Your task to perform on an android device: Open ESPN.com Image 0: 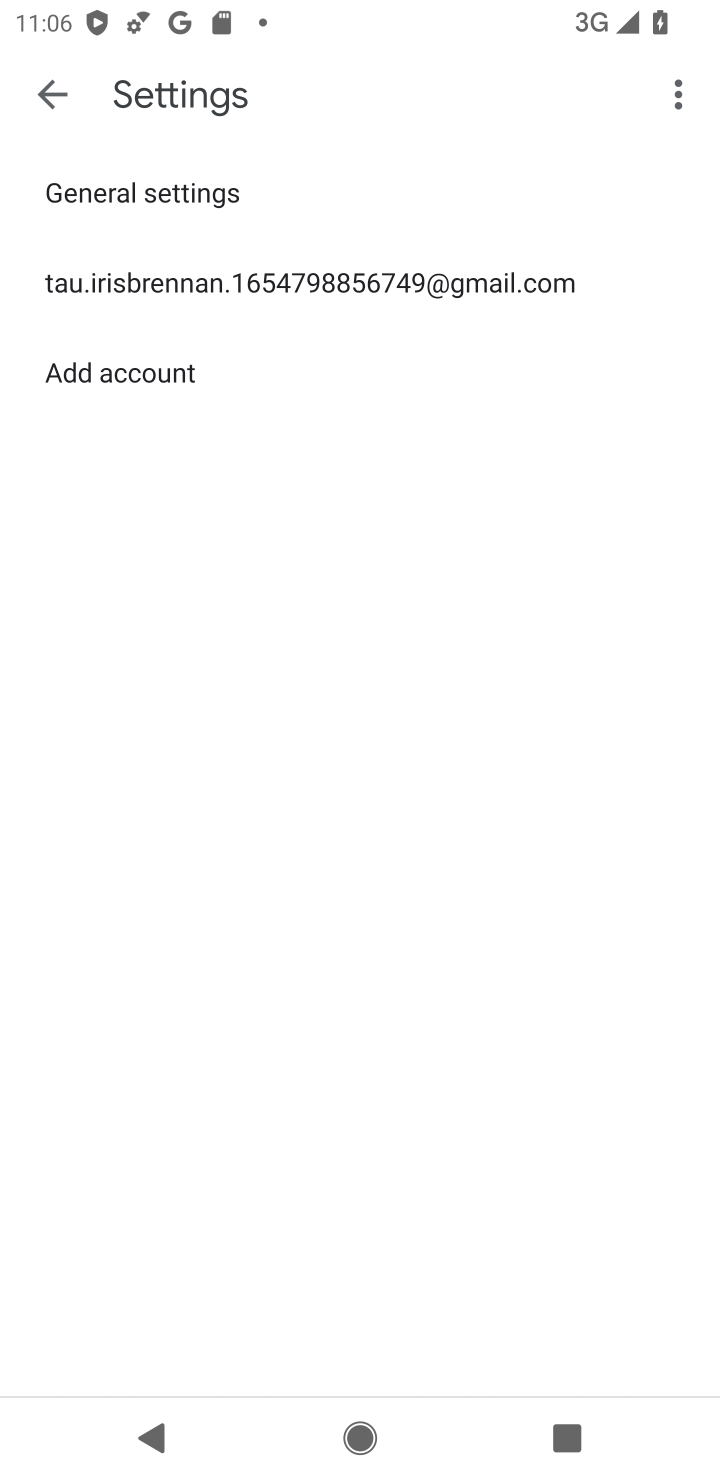
Step 0: press home button
Your task to perform on an android device: Open ESPN.com Image 1: 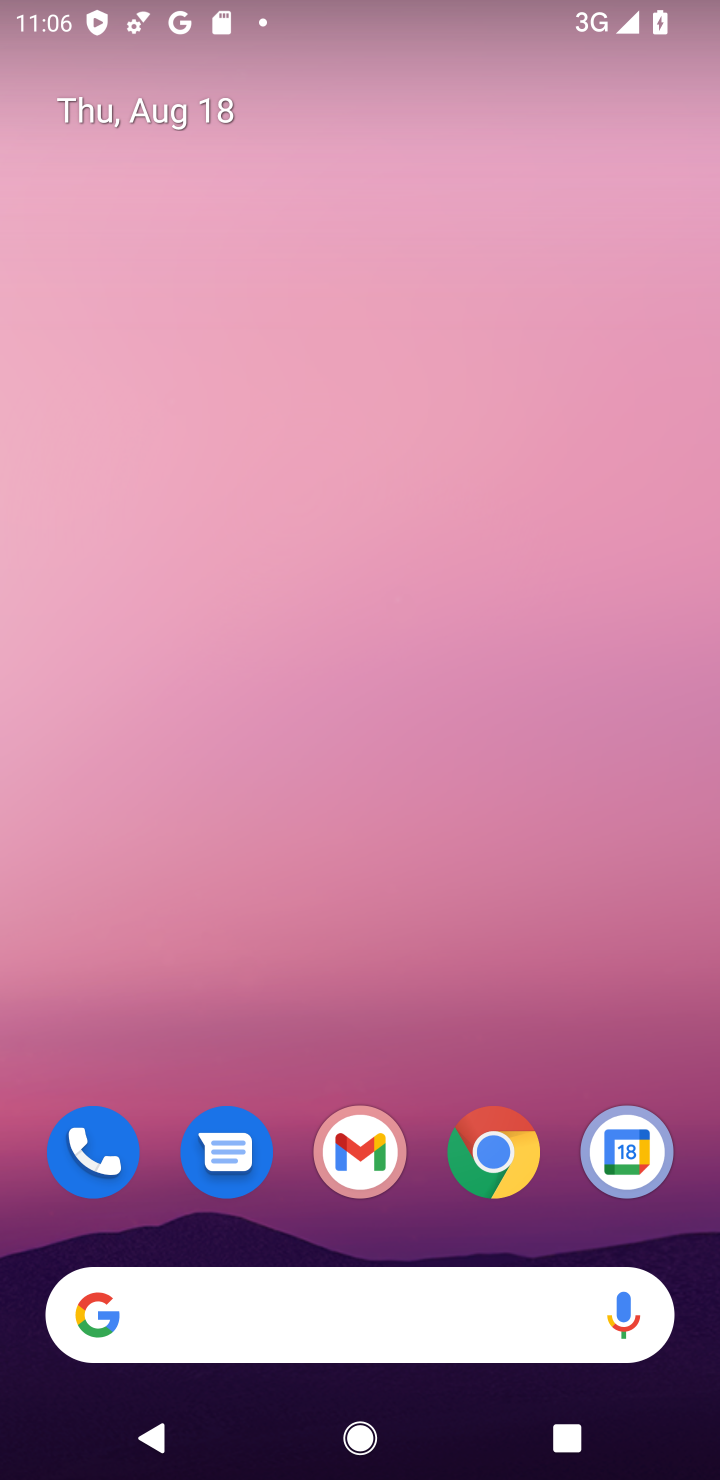
Step 1: click (436, 1336)
Your task to perform on an android device: Open ESPN.com Image 2: 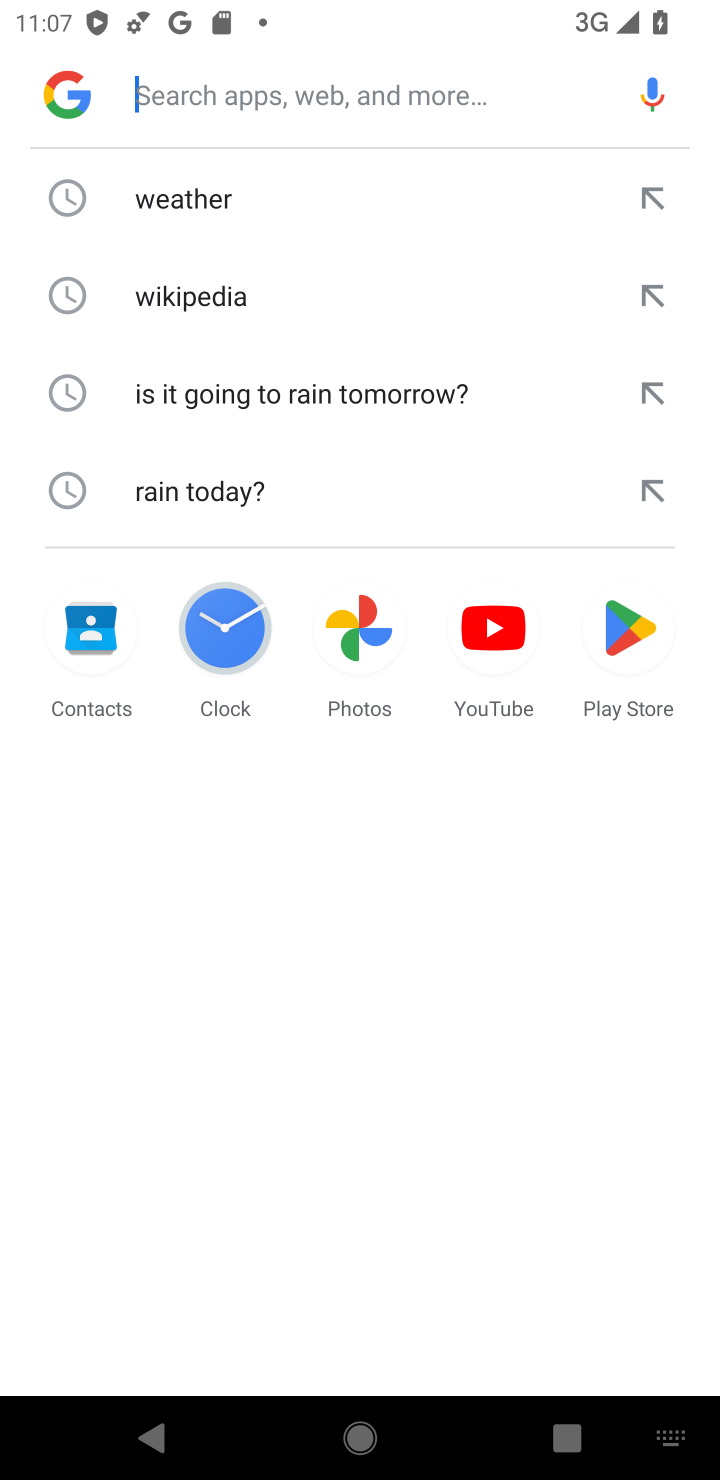
Step 2: type "espn.com"
Your task to perform on an android device: Open ESPN.com Image 3: 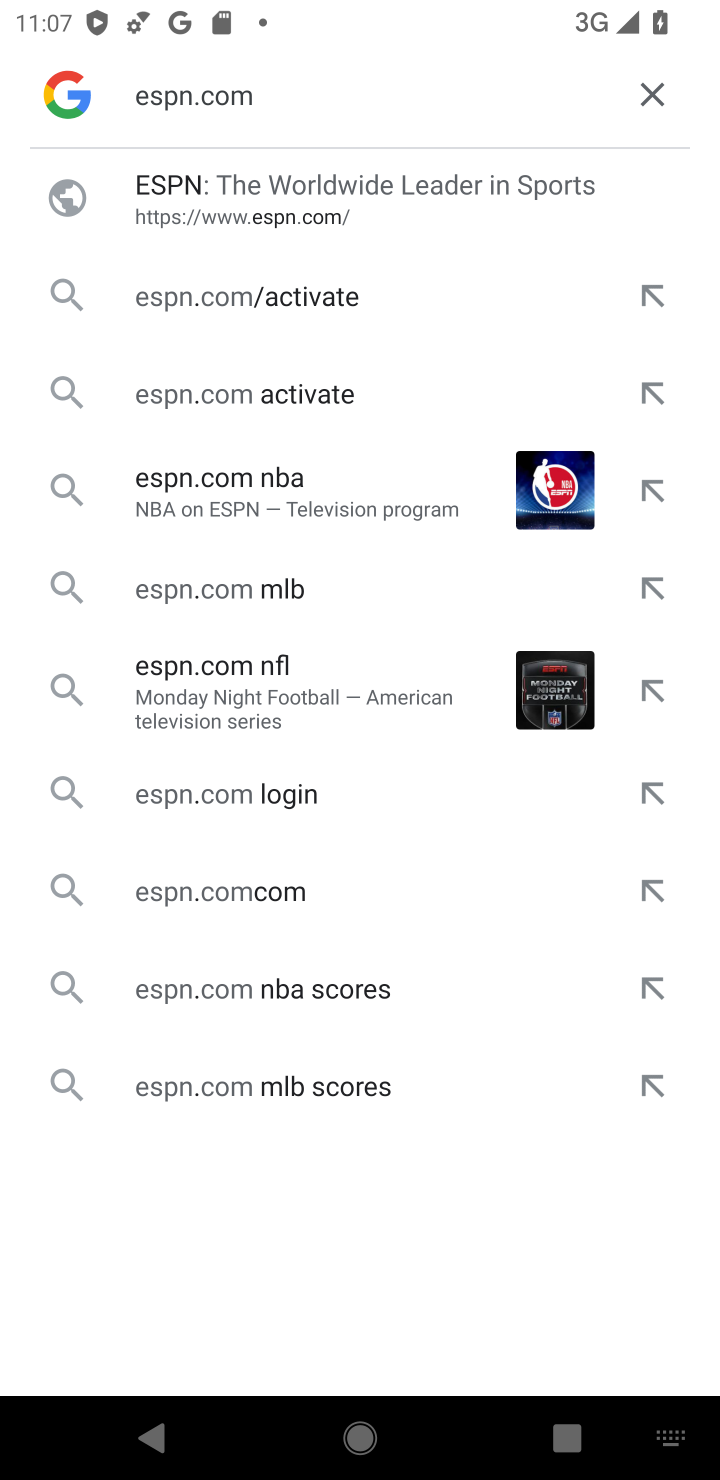
Step 3: click (349, 194)
Your task to perform on an android device: Open ESPN.com Image 4: 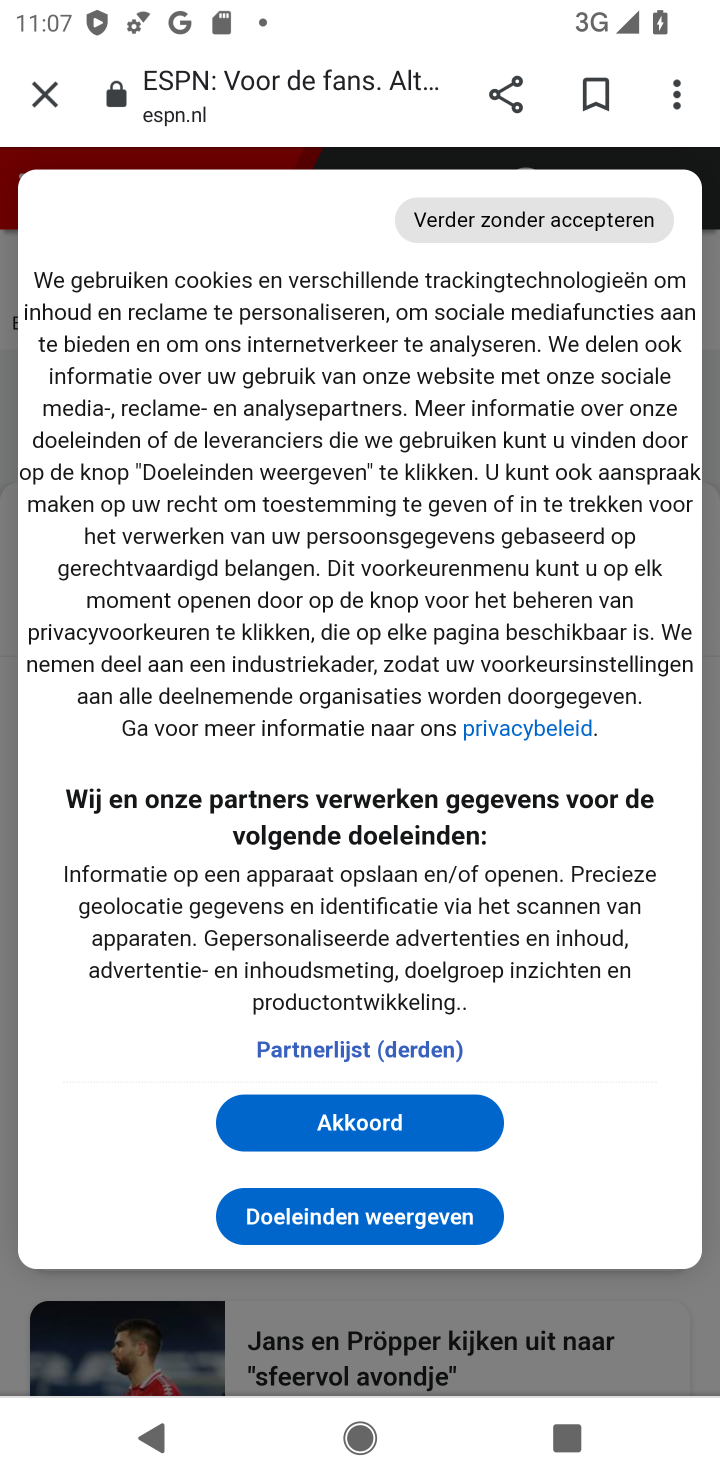
Step 4: drag from (427, 1002) to (422, 398)
Your task to perform on an android device: Open ESPN.com Image 5: 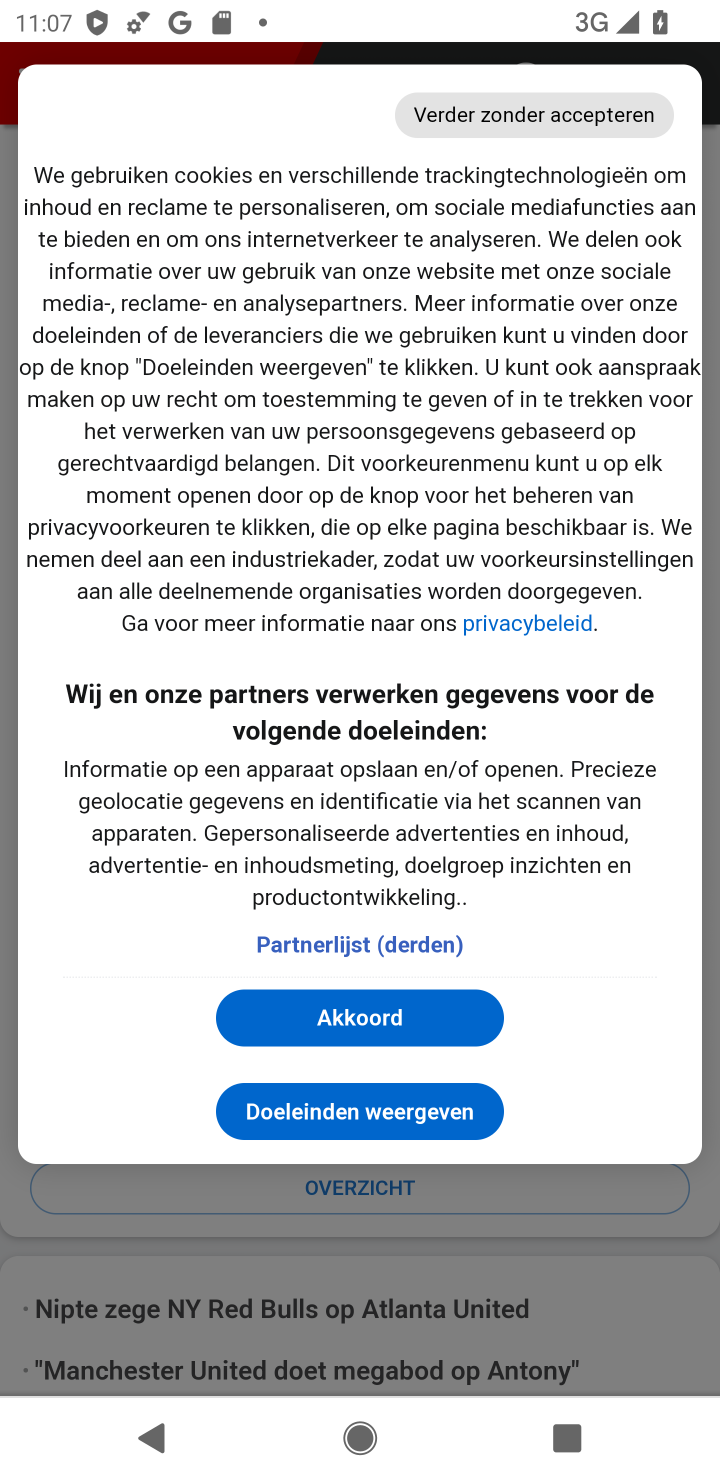
Step 5: drag from (422, 392) to (456, 1243)
Your task to perform on an android device: Open ESPN.com Image 6: 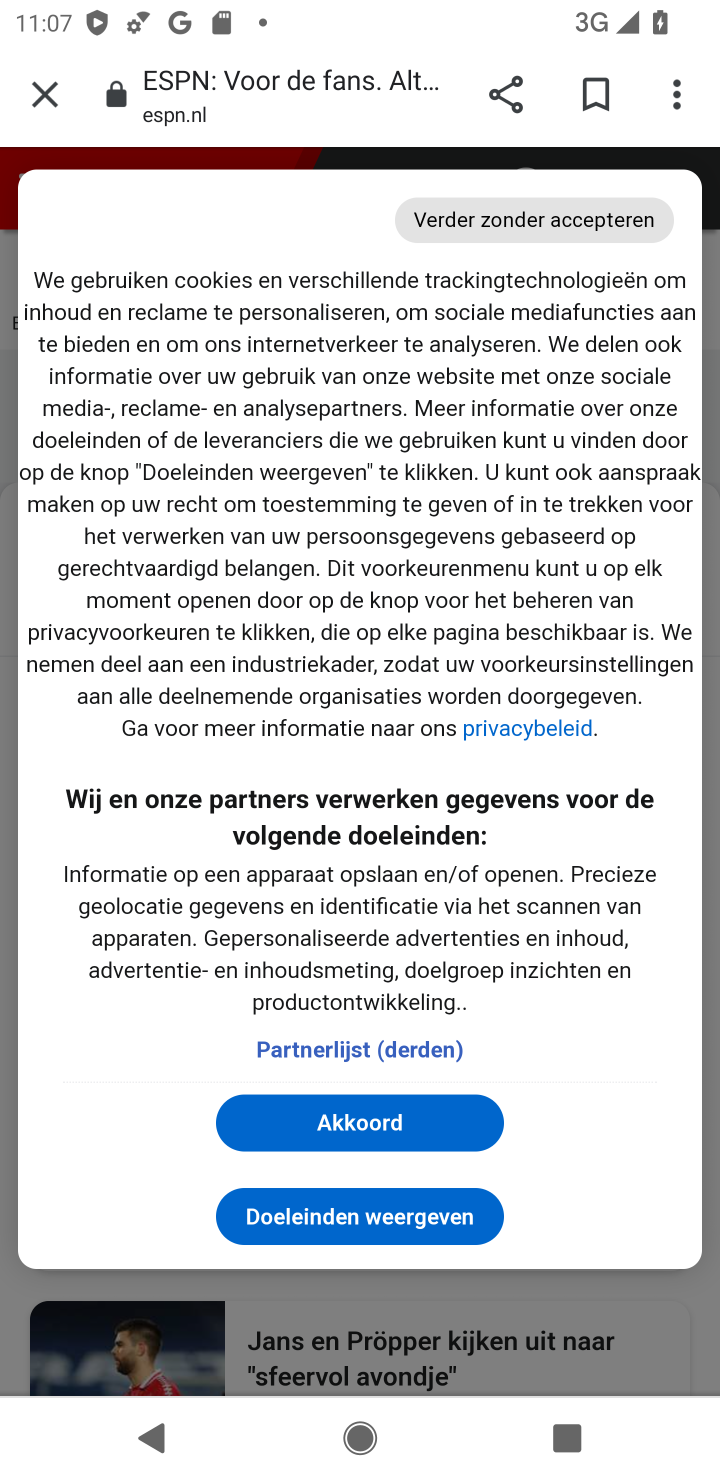
Step 6: click (567, 211)
Your task to perform on an android device: Open ESPN.com Image 7: 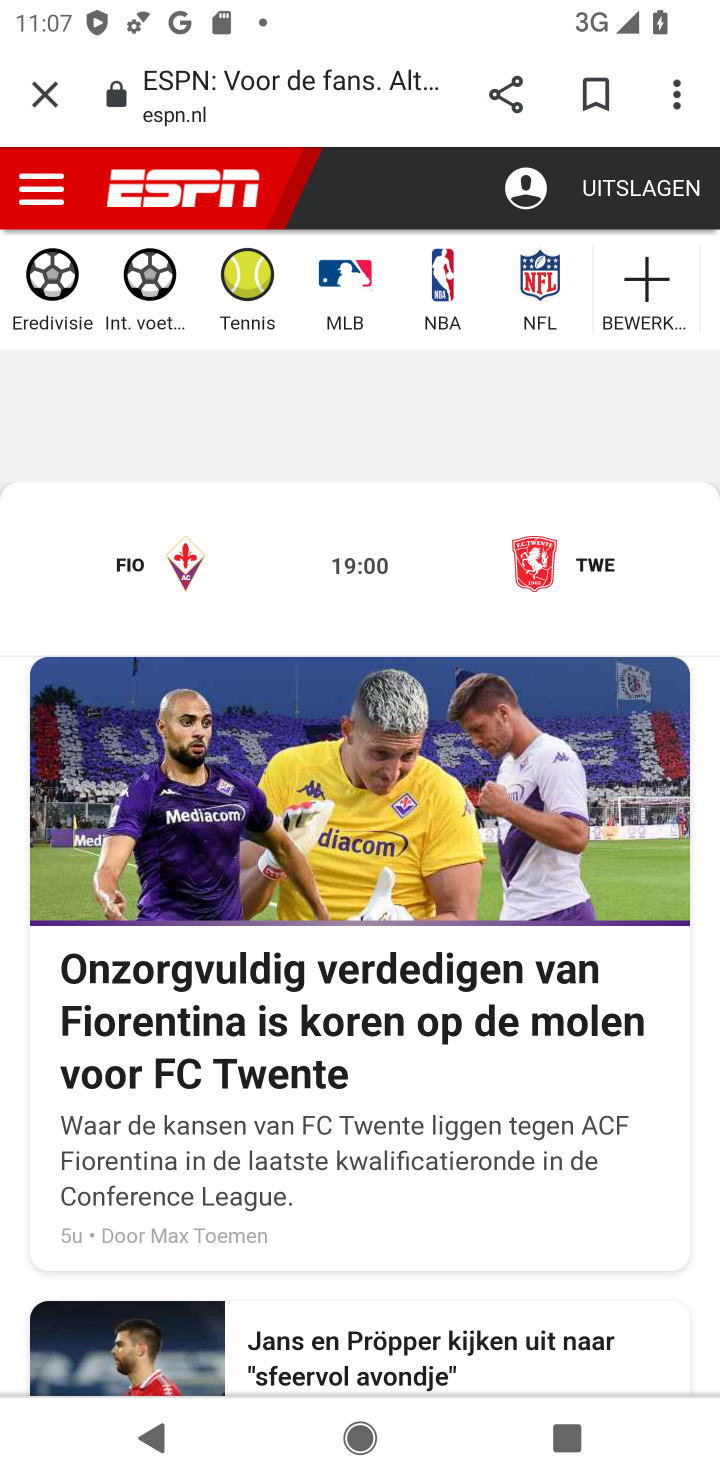
Step 7: task complete